Your task to perform on an android device: delete location history Image 0: 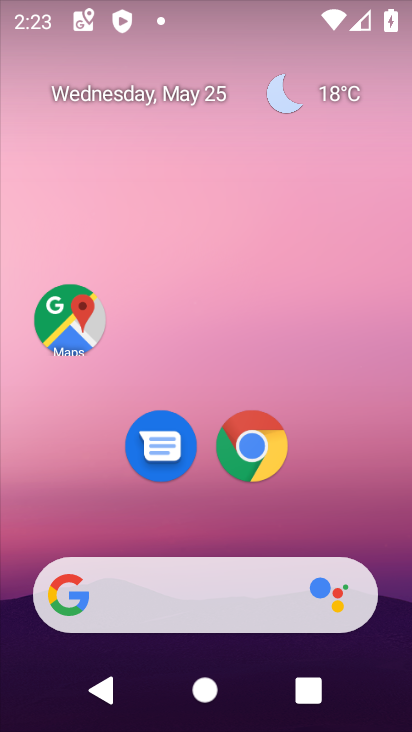
Step 0: drag from (227, 564) to (207, 8)
Your task to perform on an android device: delete location history Image 1: 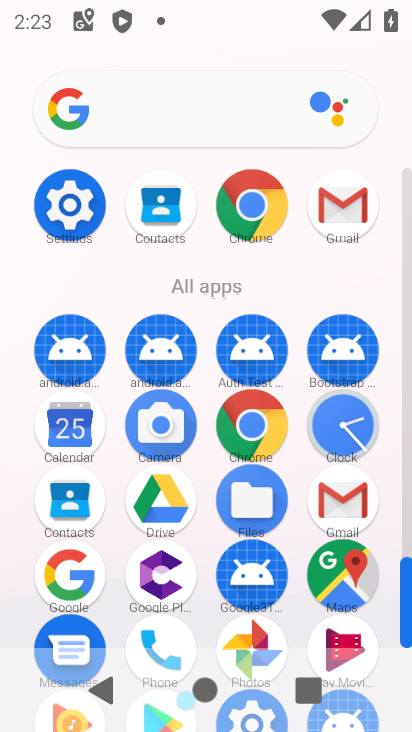
Step 1: click (346, 563)
Your task to perform on an android device: delete location history Image 2: 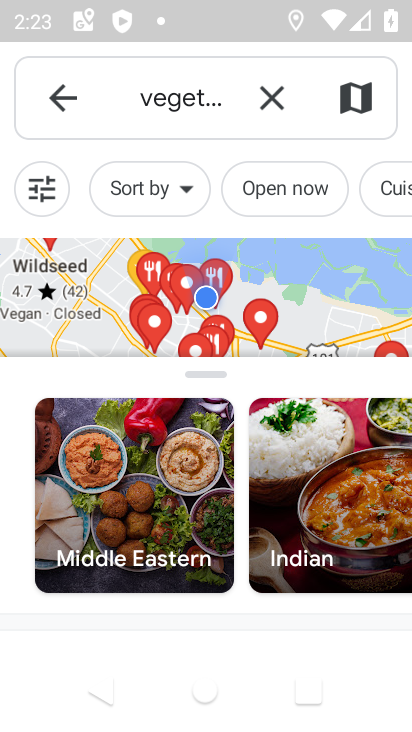
Step 2: click (71, 105)
Your task to perform on an android device: delete location history Image 3: 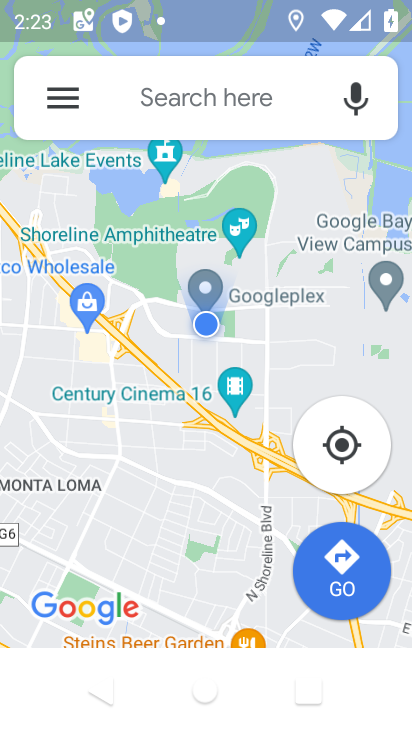
Step 3: click (62, 116)
Your task to perform on an android device: delete location history Image 4: 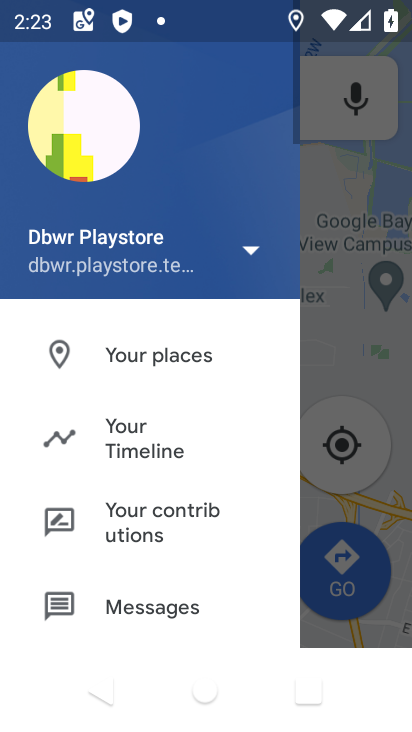
Step 4: click (154, 435)
Your task to perform on an android device: delete location history Image 5: 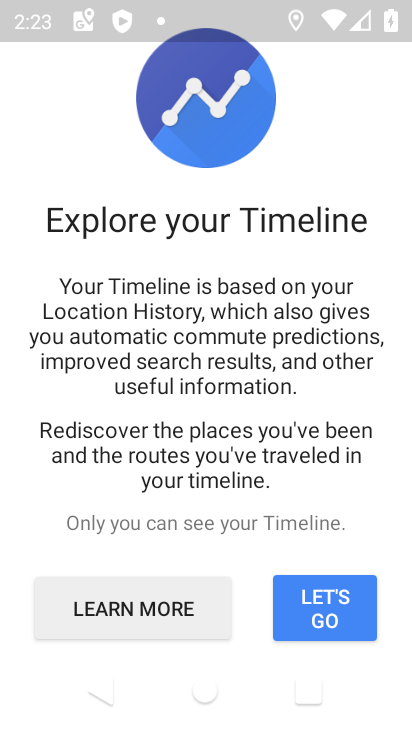
Step 5: click (298, 612)
Your task to perform on an android device: delete location history Image 6: 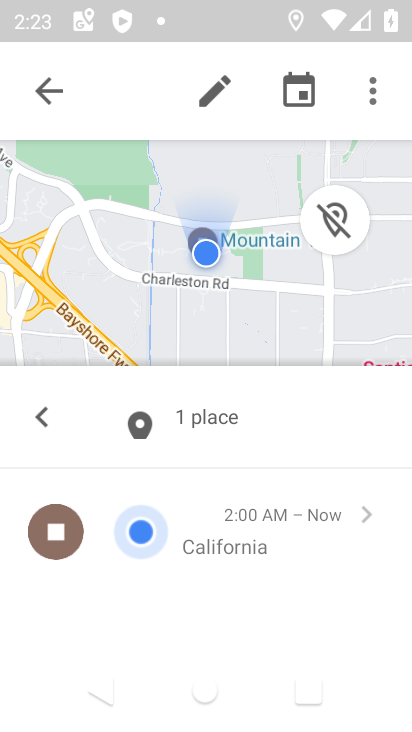
Step 6: click (374, 91)
Your task to perform on an android device: delete location history Image 7: 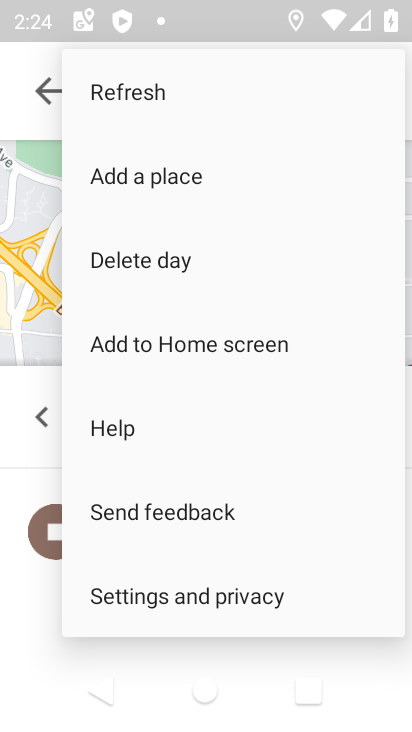
Step 7: click (219, 572)
Your task to perform on an android device: delete location history Image 8: 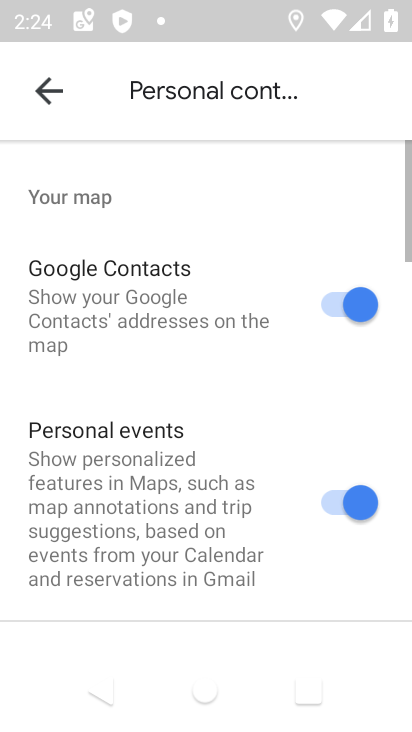
Step 8: drag from (220, 584) to (228, 225)
Your task to perform on an android device: delete location history Image 9: 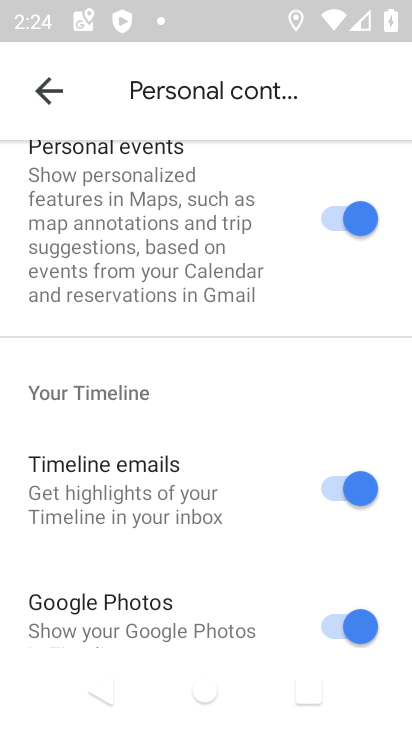
Step 9: drag from (230, 586) to (281, 7)
Your task to perform on an android device: delete location history Image 10: 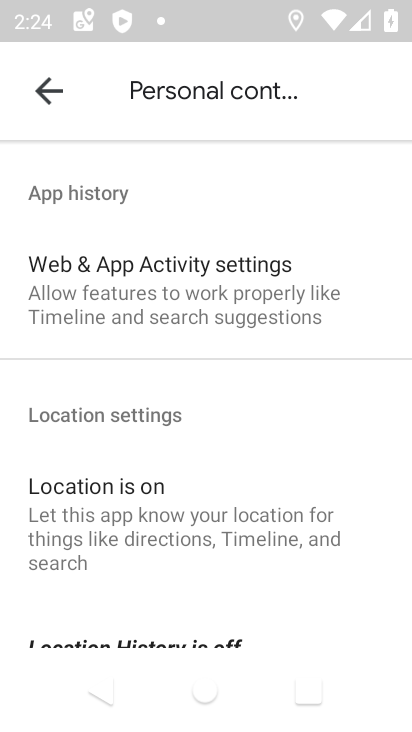
Step 10: drag from (213, 549) to (233, 142)
Your task to perform on an android device: delete location history Image 11: 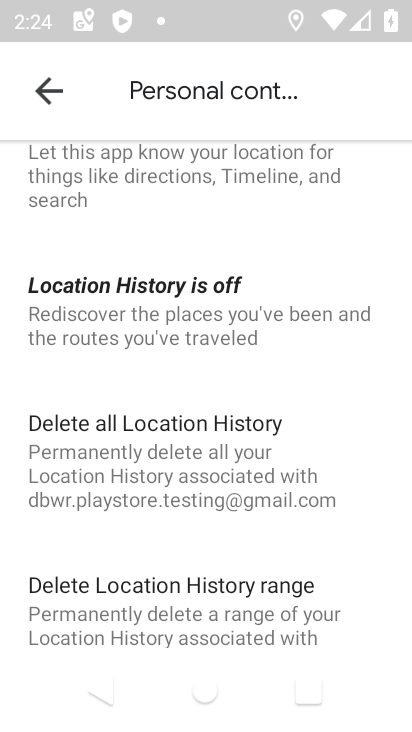
Step 11: click (216, 457)
Your task to perform on an android device: delete location history Image 12: 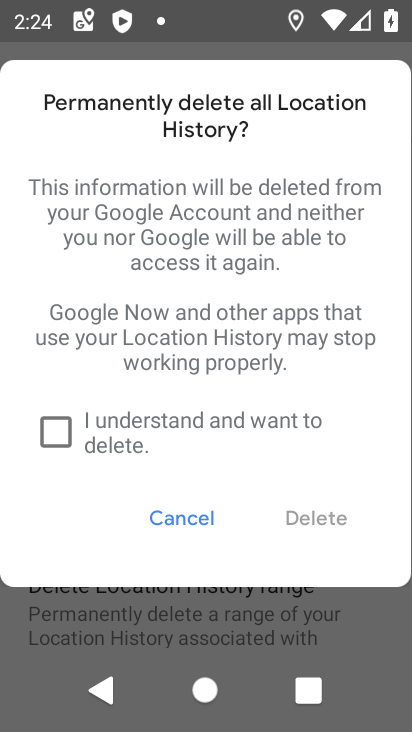
Step 12: click (180, 422)
Your task to perform on an android device: delete location history Image 13: 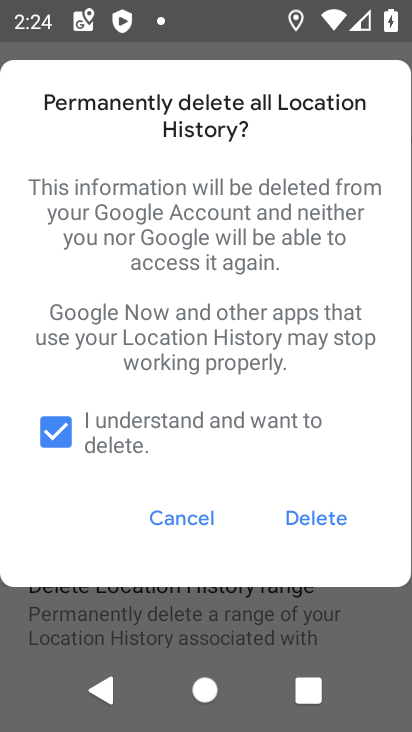
Step 13: click (322, 512)
Your task to perform on an android device: delete location history Image 14: 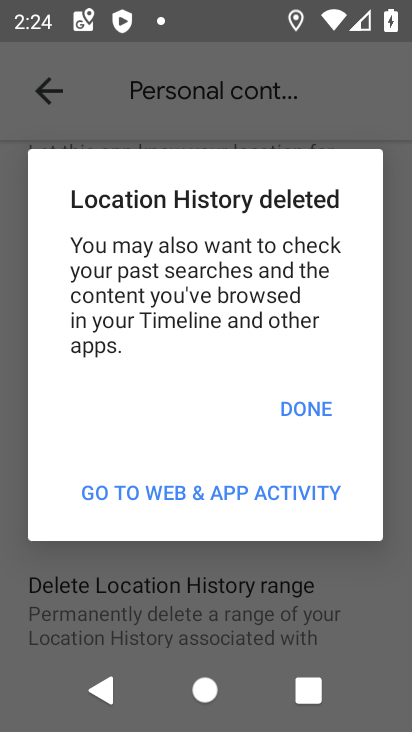
Step 14: click (322, 400)
Your task to perform on an android device: delete location history Image 15: 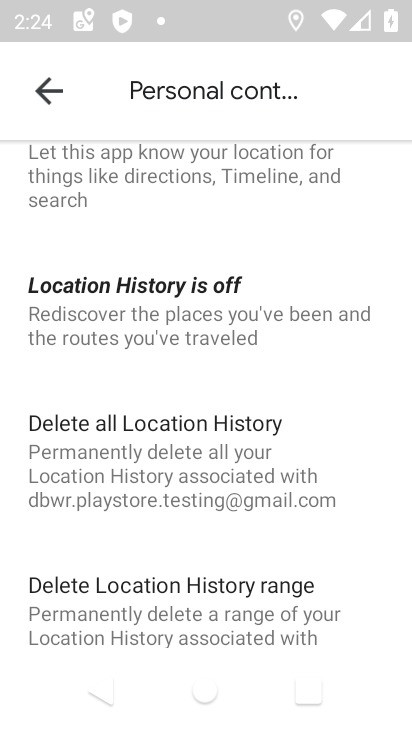
Step 15: task complete